Your task to perform on an android device: Open Yahoo.com Image 0: 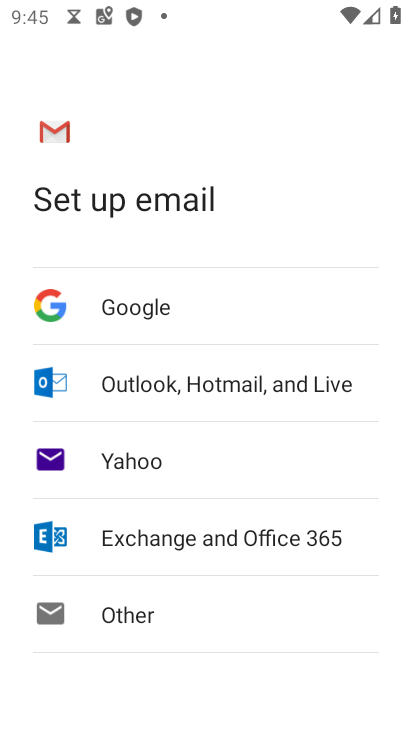
Step 0: press home button
Your task to perform on an android device: Open Yahoo.com Image 1: 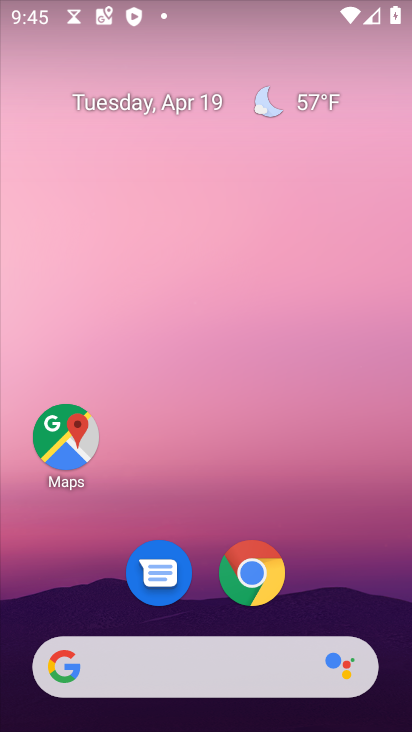
Step 1: drag from (322, 569) to (289, 22)
Your task to perform on an android device: Open Yahoo.com Image 2: 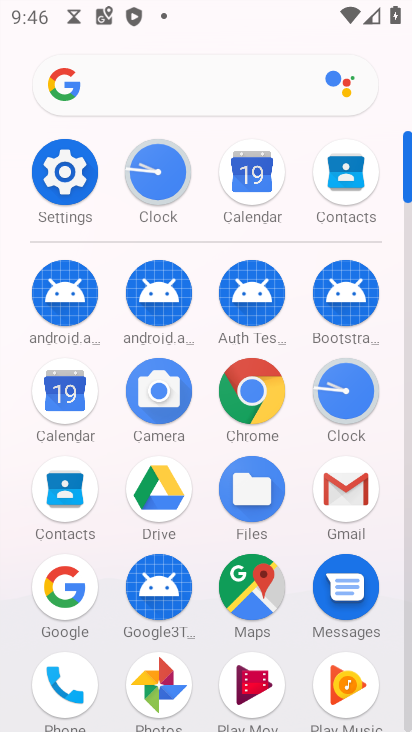
Step 2: click (263, 389)
Your task to perform on an android device: Open Yahoo.com Image 3: 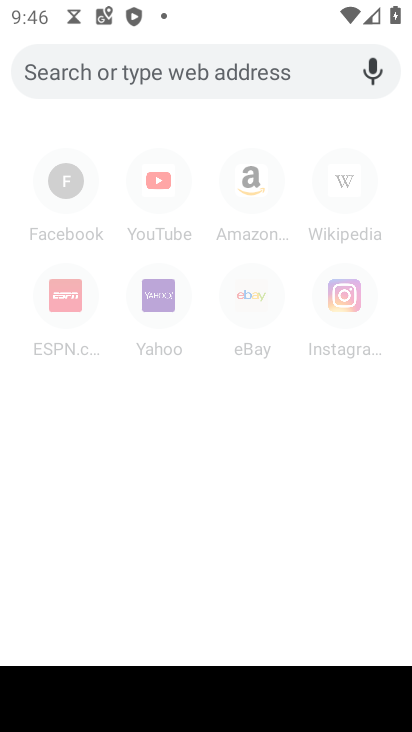
Step 3: click (157, 292)
Your task to perform on an android device: Open Yahoo.com Image 4: 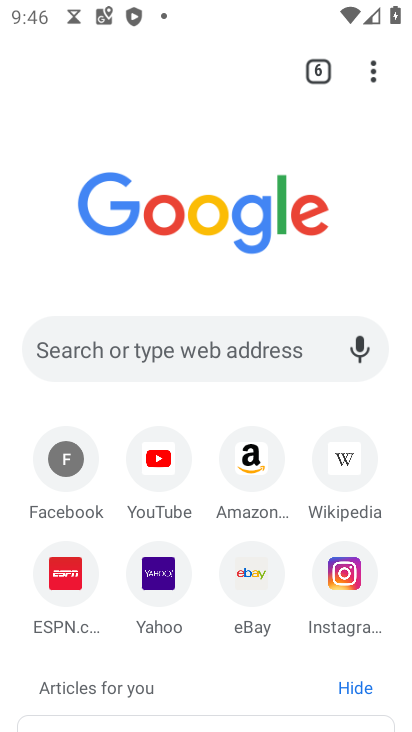
Step 4: click (157, 579)
Your task to perform on an android device: Open Yahoo.com Image 5: 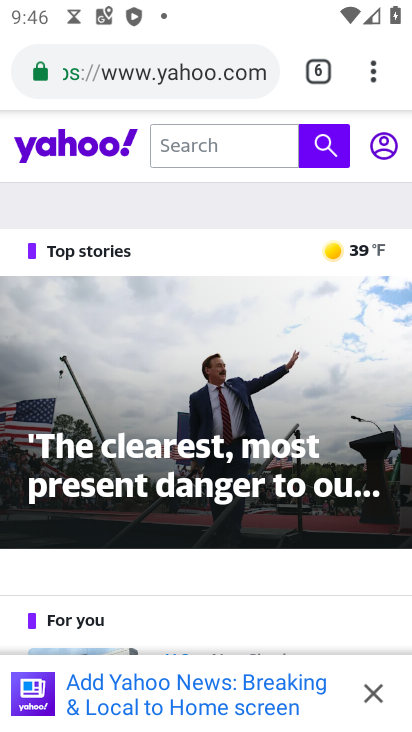
Step 5: task complete